Your task to perform on an android device: Where can I buy a nice beach sandals? Image 0: 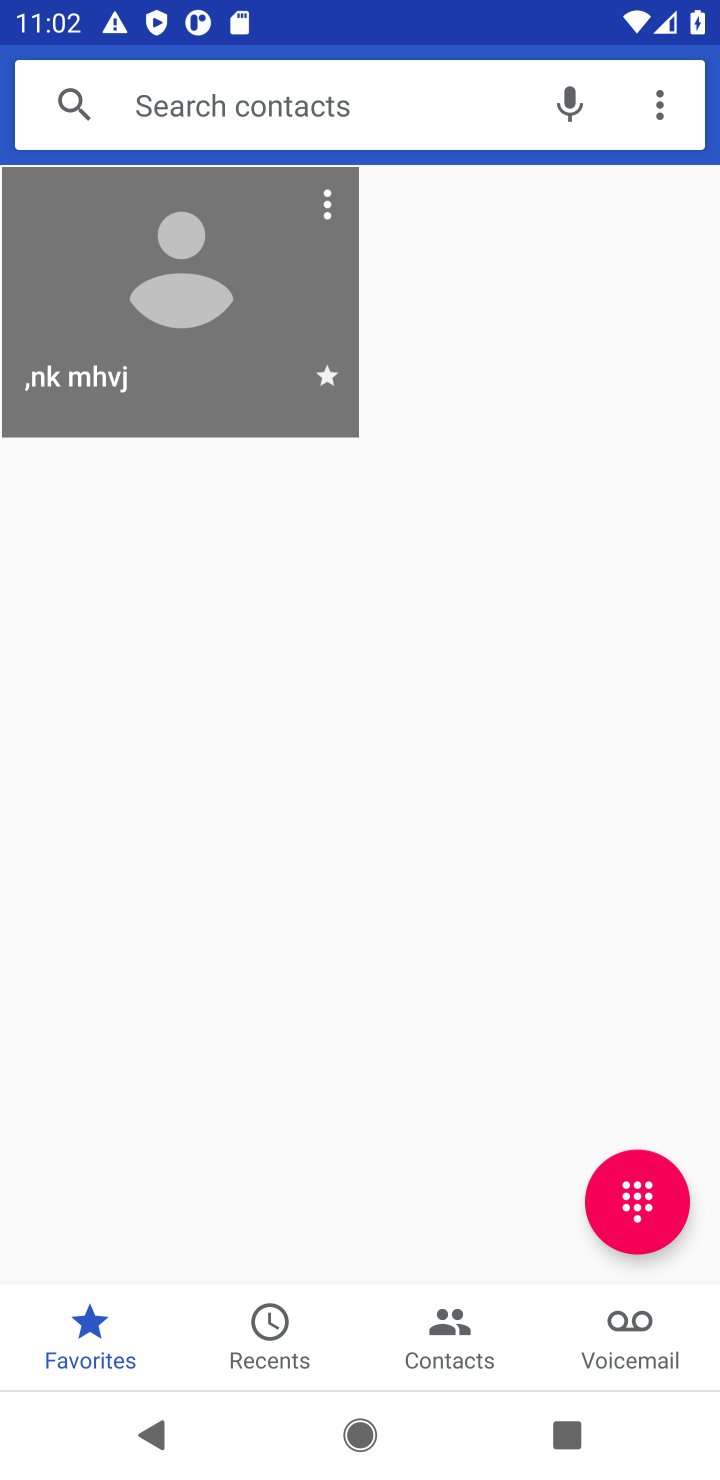
Step 0: press home button
Your task to perform on an android device: Where can I buy a nice beach sandals? Image 1: 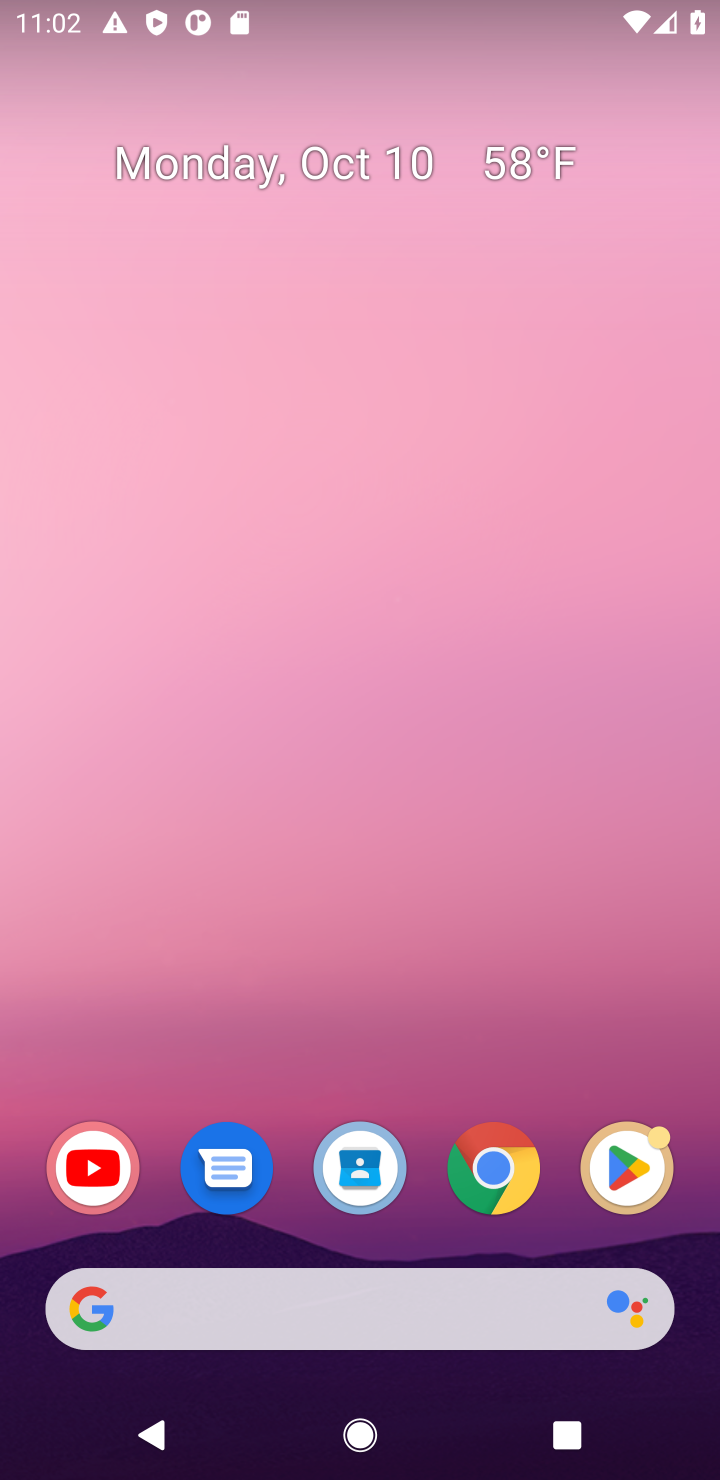
Step 1: click (241, 1287)
Your task to perform on an android device: Where can I buy a nice beach sandals? Image 2: 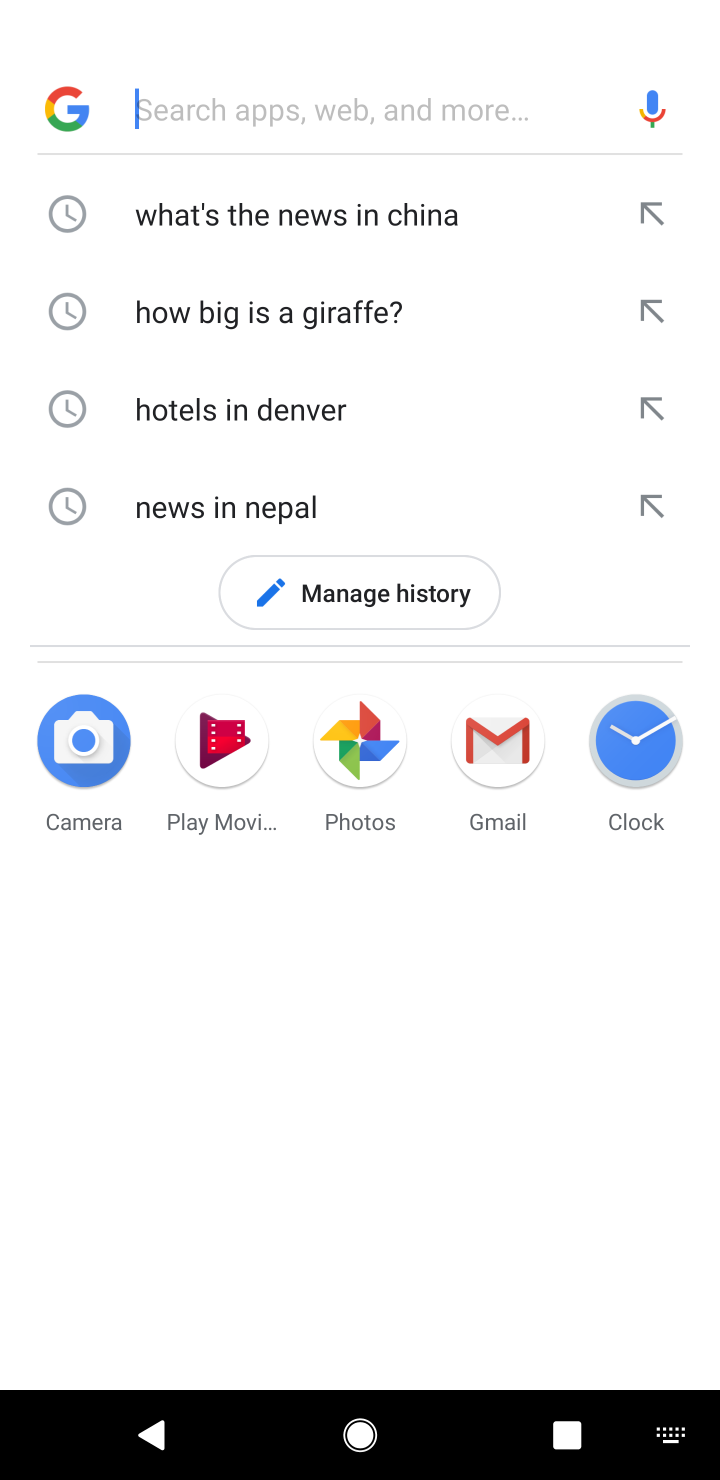
Step 2: type "nice beach sandals"
Your task to perform on an android device: Where can I buy a nice beach sandals? Image 3: 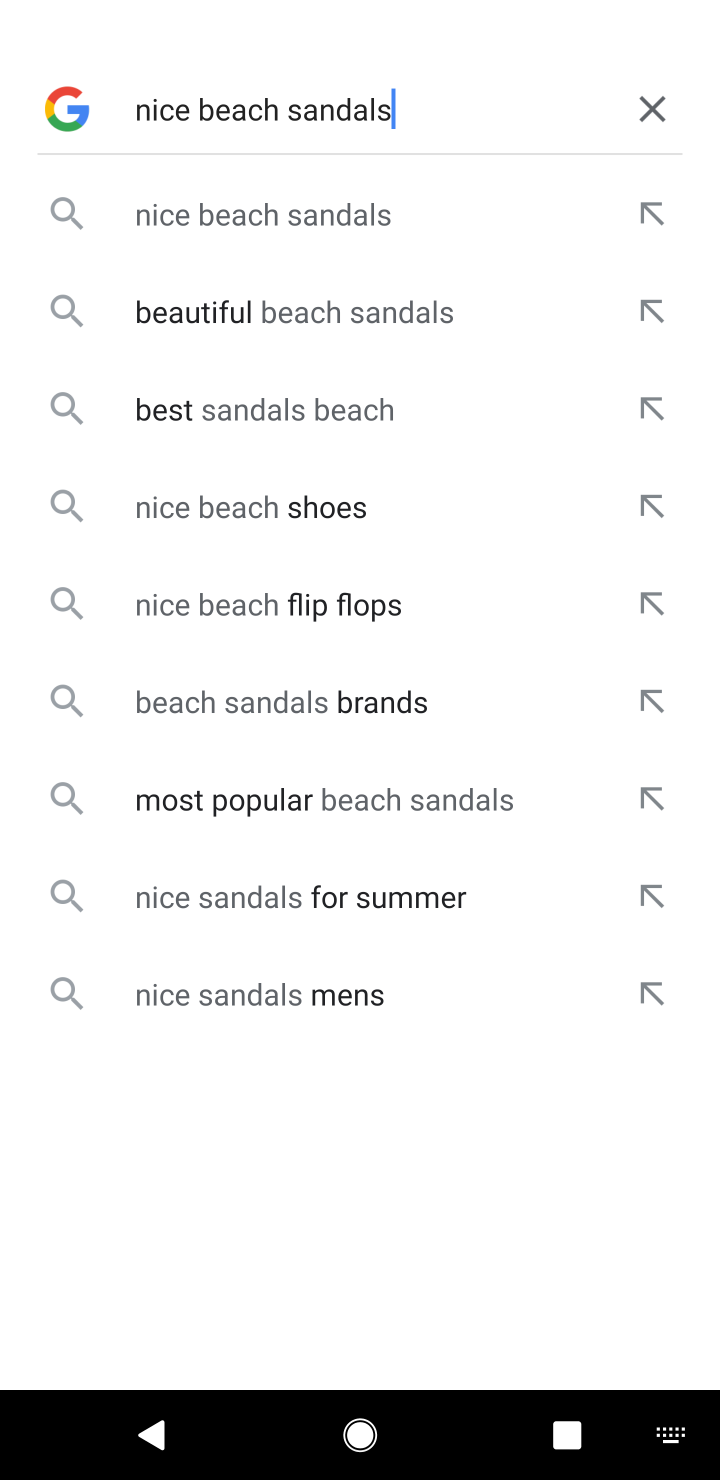
Step 3: click (298, 223)
Your task to perform on an android device: Where can I buy a nice beach sandals? Image 4: 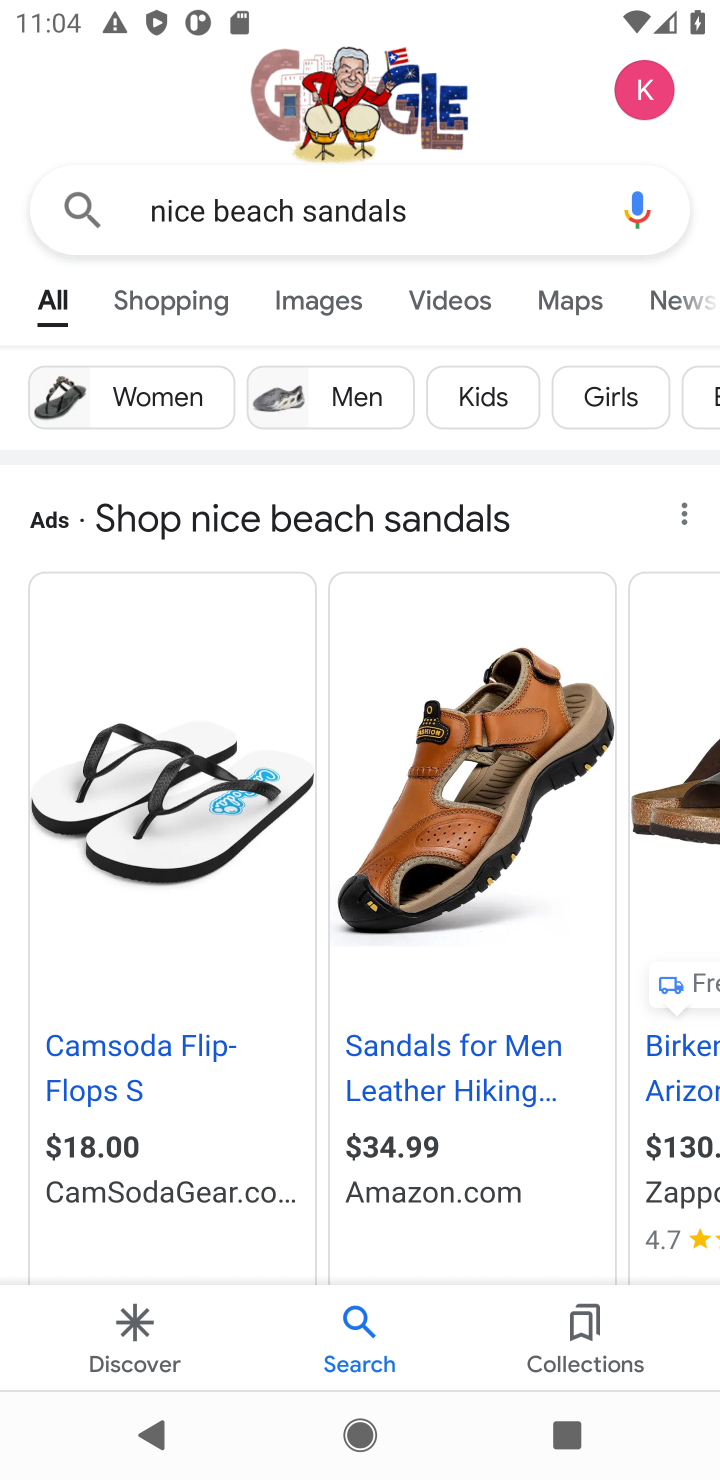
Step 4: task complete